Your task to perform on an android device: Open the web browser Image 0: 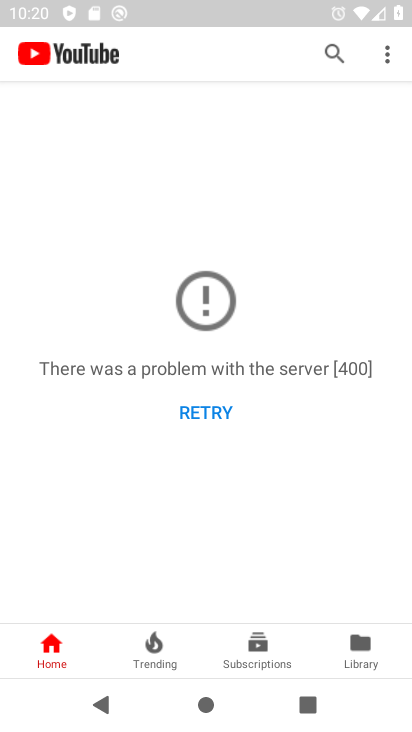
Step 0: press home button
Your task to perform on an android device: Open the web browser Image 1: 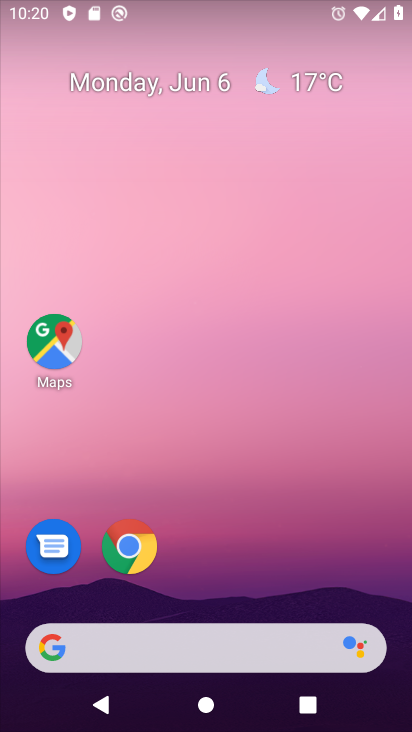
Step 1: click (127, 545)
Your task to perform on an android device: Open the web browser Image 2: 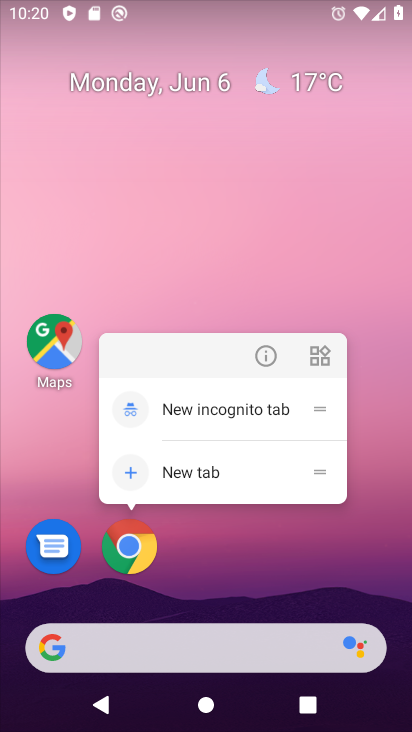
Step 2: click (127, 545)
Your task to perform on an android device: Open the web browser Image 3: 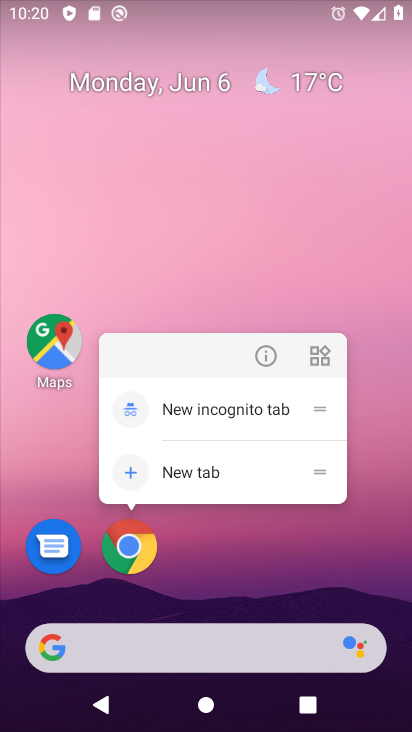
Step 3: click (127, 544)
Your task to perform on an android device: Open the web browser Image 4: 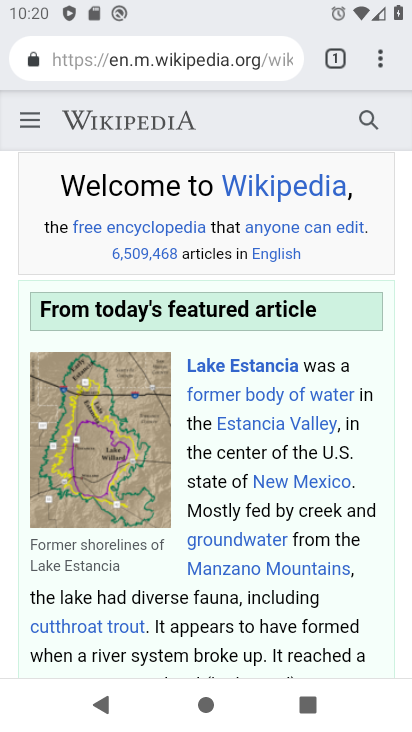
Step 4: task complete